Your task to perform on an android device: open wifi settings Image 0: 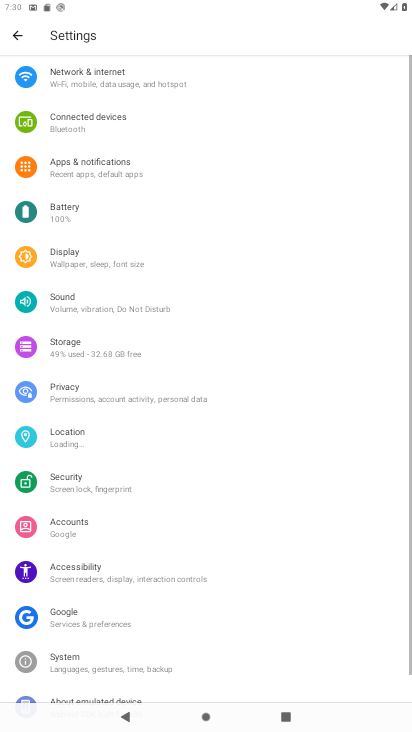
Step 0: press home button
Your task to perform on an android device: open wifi settings Image 1: 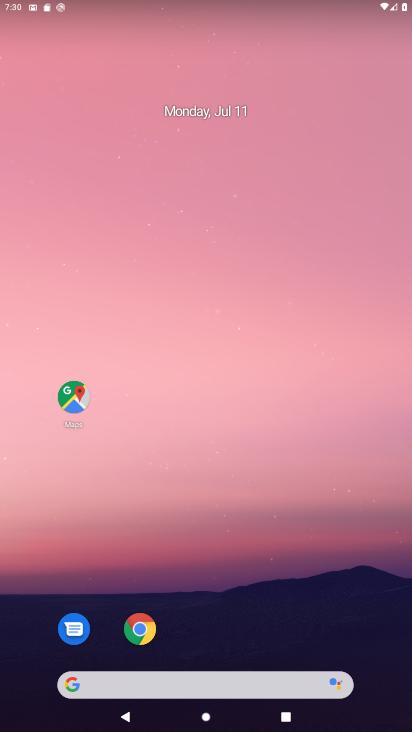
Step 1: drag from (339, 626) to (369, 86)
Your task to perform on an android device: open wifi settings Image 2: 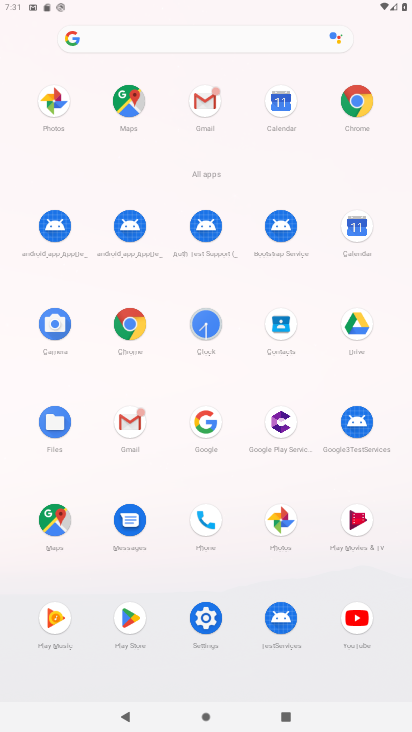
Step 2: click (208, 621)
Your task to perform on an android device: open wifi settings Image 3: 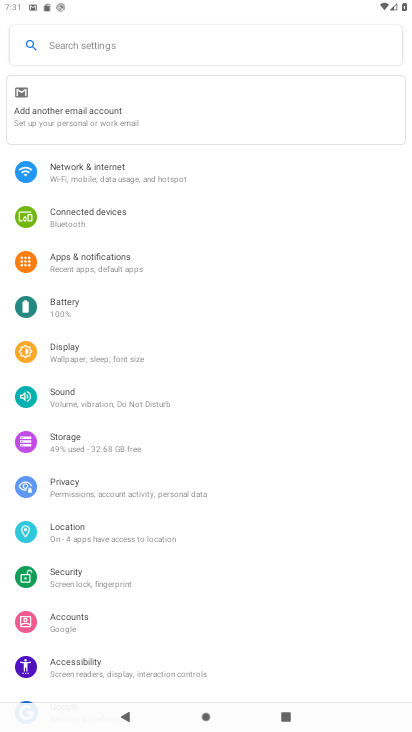
Step 3: drag from (328, 496) to (326, 259)
Your task to perform on an android device: open wifi settings Image 4: 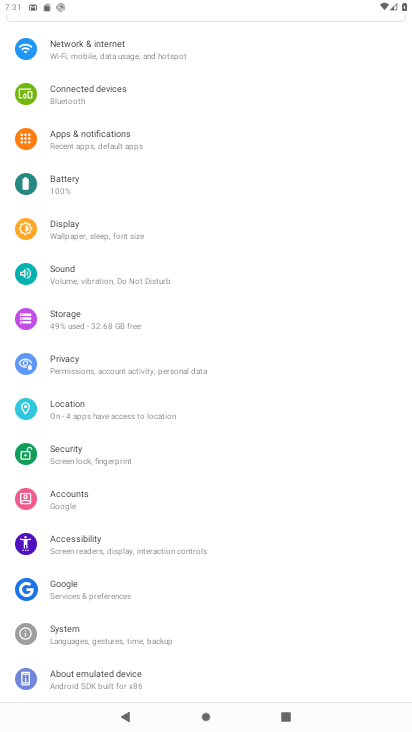
Step 4: drag from (311, 568) to (329, 330)
Your task to perform on an android device: open wifi settings Image 5: 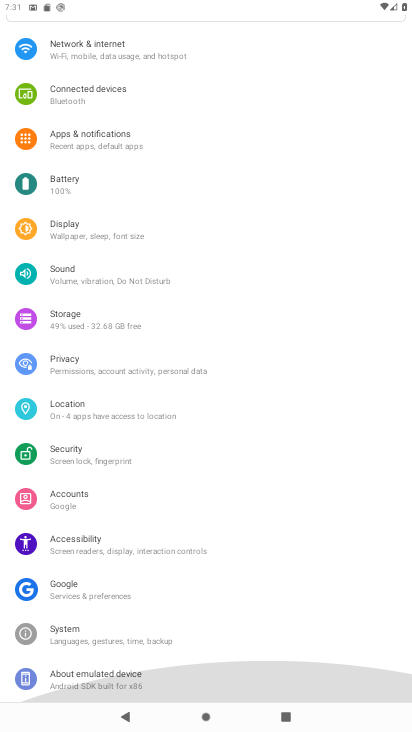
Step 5: drag from (324, 282) to (321, 434)
Your task to perform on an android device: open wifi settings Image 6: 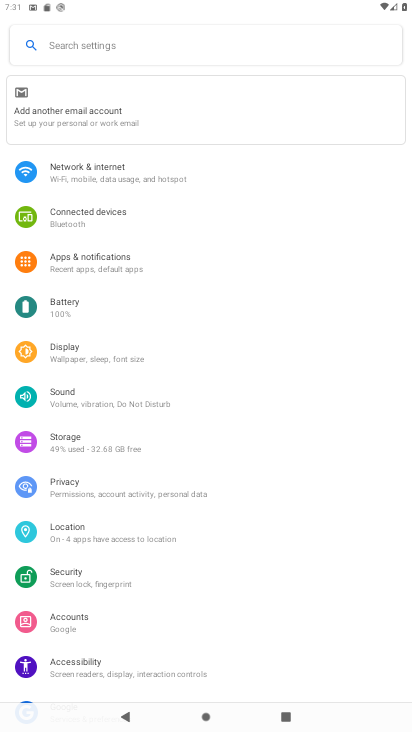
Step 6: drag from (324, 265) to (323, 421)
Your task to perform on an android device: open wifi settings Image 7: 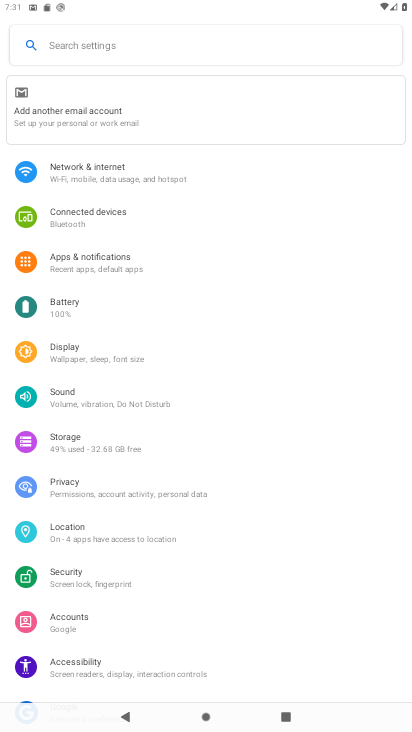
Step 7: click (225, 174)
Your task to perform on an android device: open wifi settings Image 8: 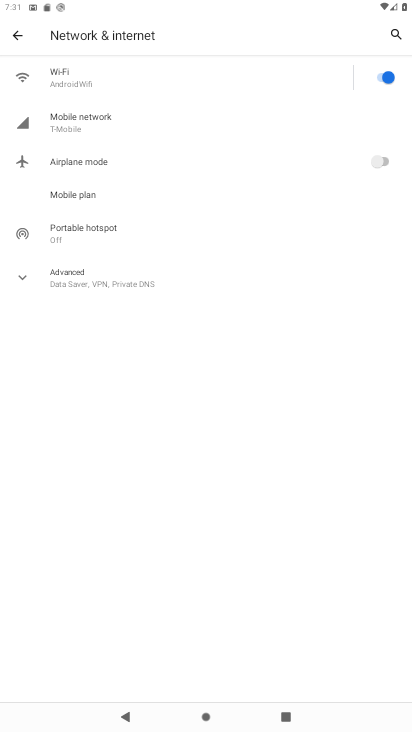
Step 8: click (103, 72)
Your task to perform on an android device: open wifi settings Image 9: 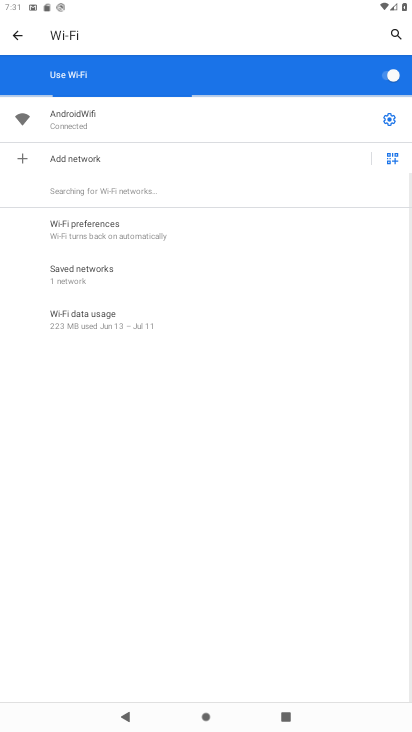
Step 9: task complete